Your task to perform on an android device: see tabs open on other devices in the chrome app Image 0: 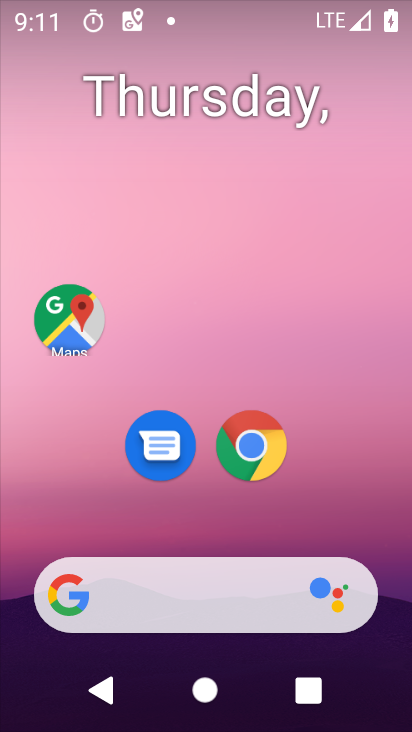
Step 0: drag from (222, 520) to (253, 231)
Your task to perform on an android device: see tabs open on other devices in the chrome app Image 1: 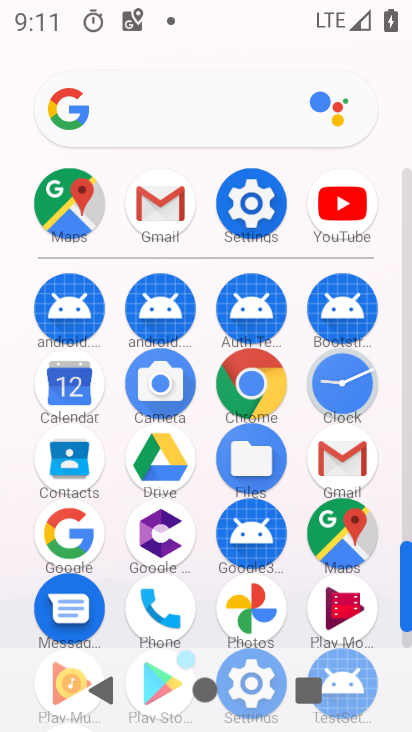
Step 1: click (236, 373)
Your task to perform on an android device: see tabs open on other devices in the chrome app Image 2: 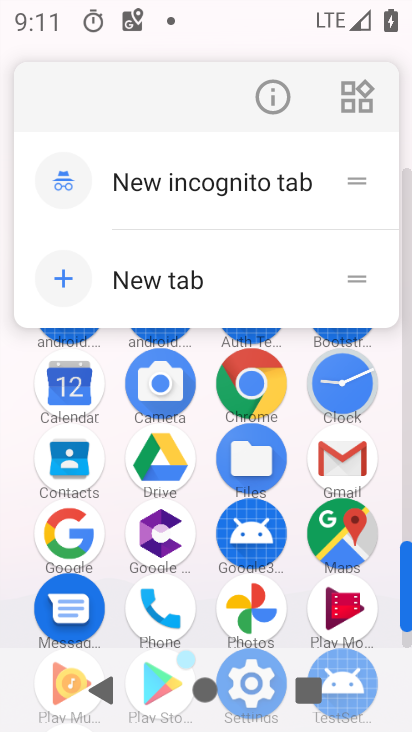
Step 2: click (274, 105)
Your task to perform on an android device: see tabs open on other devices in the chrome app Image 3: 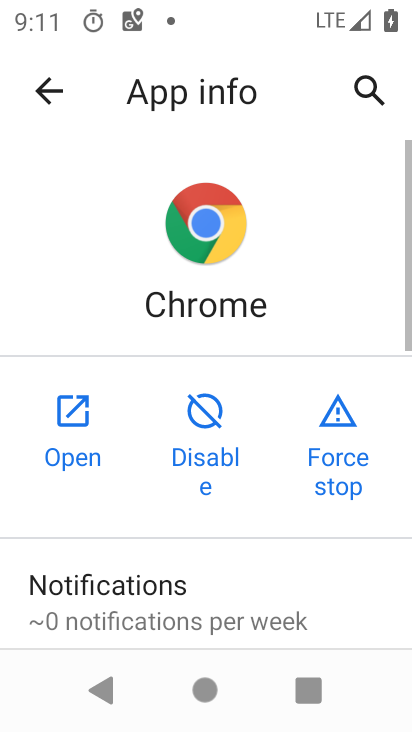
Step 3: click (68, 419)
Your task to perform on an android device: see tabs open on other devices in the chrome app Image 4: 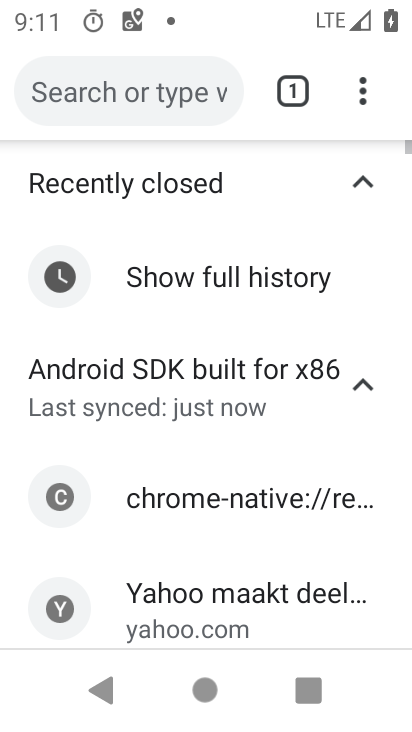
Step 4: task complete